Your task to perform on an android device: Open eBay Image 0: 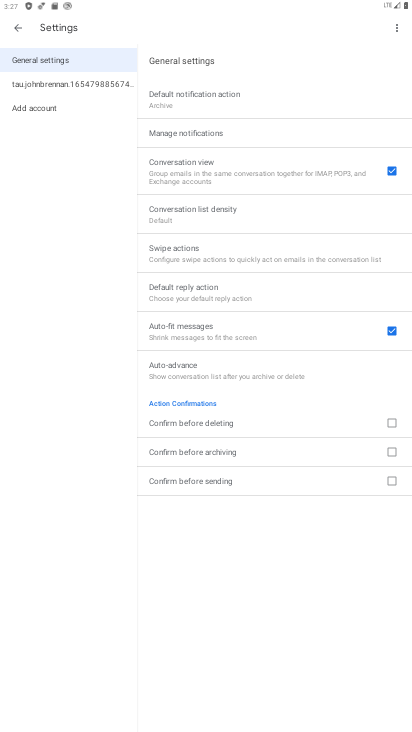
Step 0: press home button
Your task to perform on an android device: Open eBay Image 1: 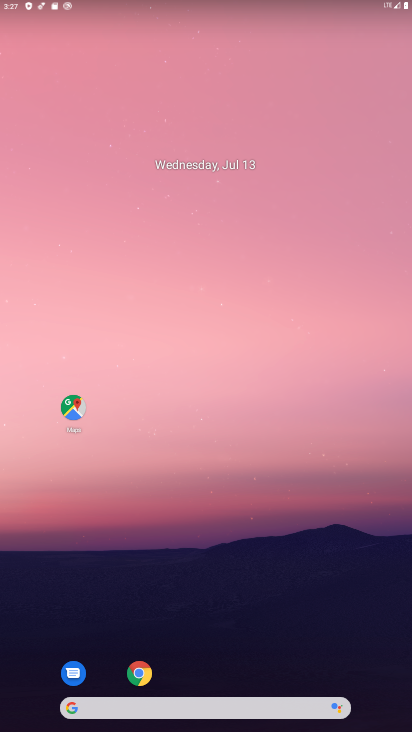
Step 1: drag from (227, 724) to (257, 141)
Your task to perform on an android device: Open eBay Image 2: 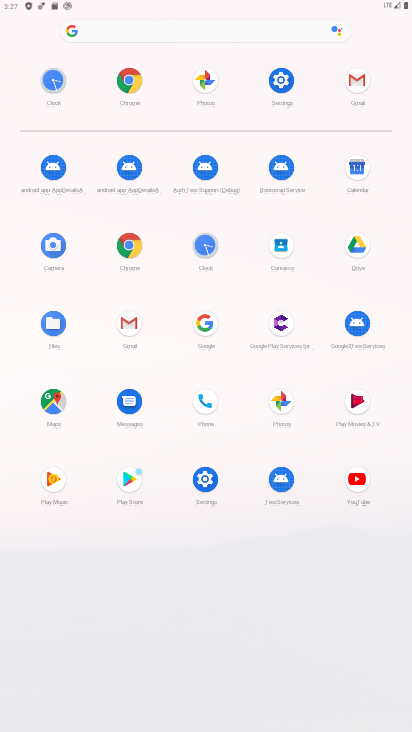
Step 2: click (130, 77)
Your task to perform on an android device: Open eBay Image 3: 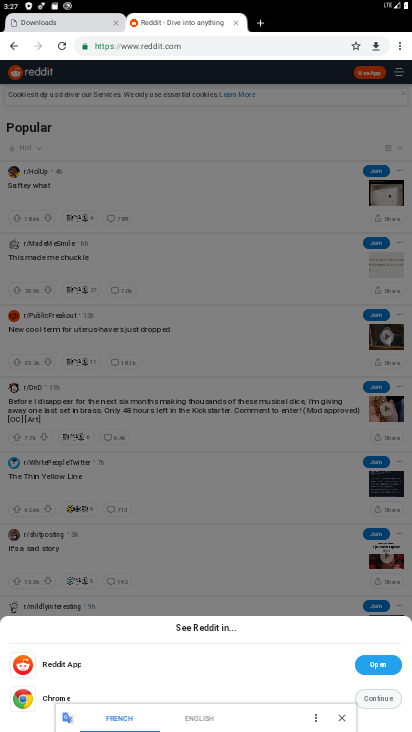
Step 3: click (402, 50)
Your task to perform on an android device: Open eBay Image 4: 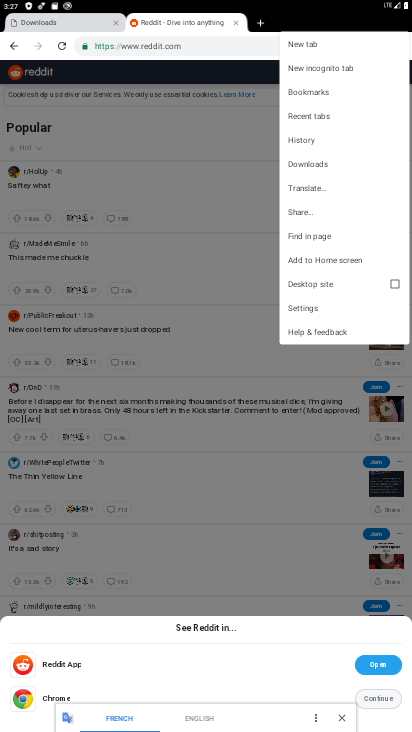
Step 4: click (316, 41)
Your task to perform on an android device: Open eBay Image 5: 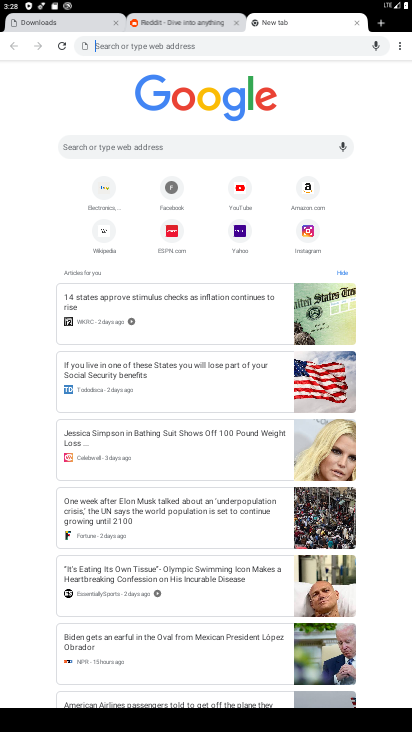
Step 5: click (227, 145)
Your task to perform on an android device: Open eBay Image 6: 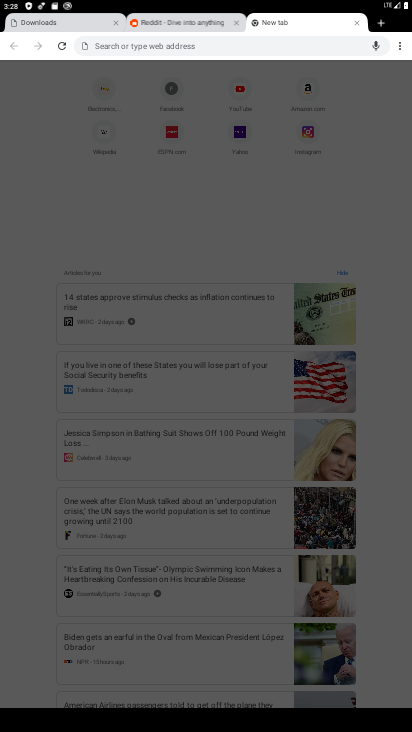
Step 6: type "eBay"
Your task to perform on an android device: Open eBay Image 7: 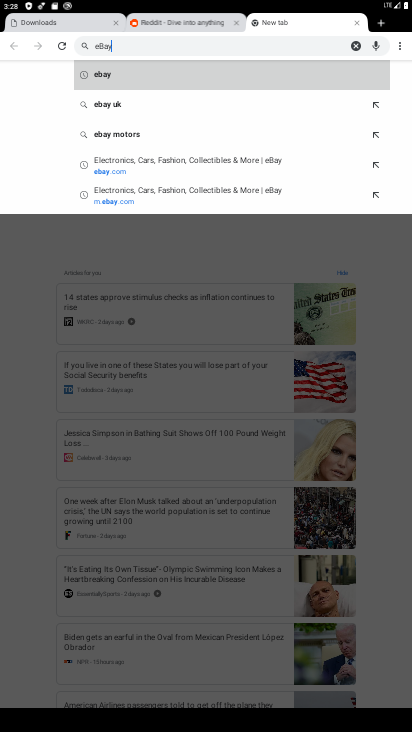
Step 7: click (118, 70)
Your task to perform on an android device: Open eBay Image 8: 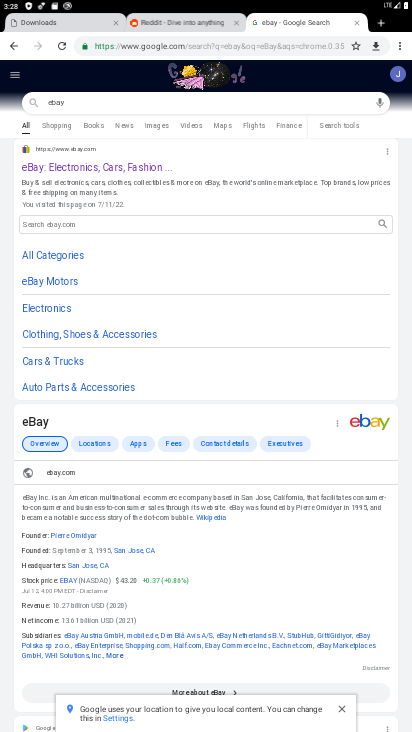
Step 8: click (96, 165)
Your task to perform on an android device: Open eBay Image 9: 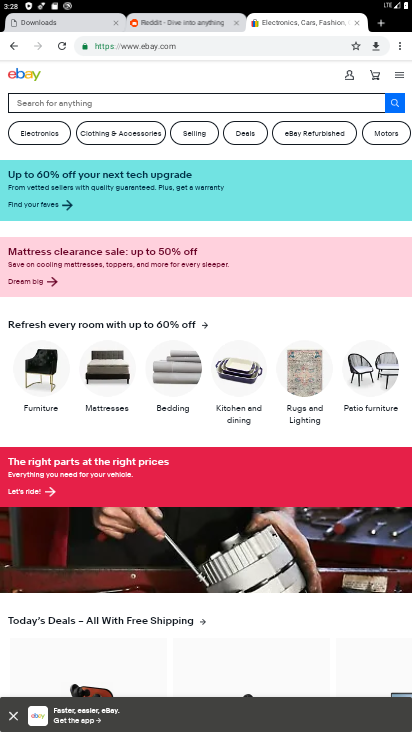
Step 9: task complete